Your task to perform on an android device: turn off notifications settings in the gmail app Image 0: 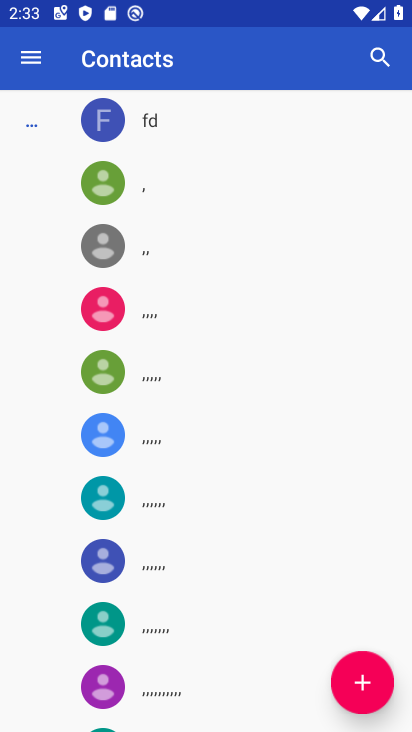
Step 0: press home button
Your task to perform on an android device: turn off notifications settings in the gmail app Image 1: 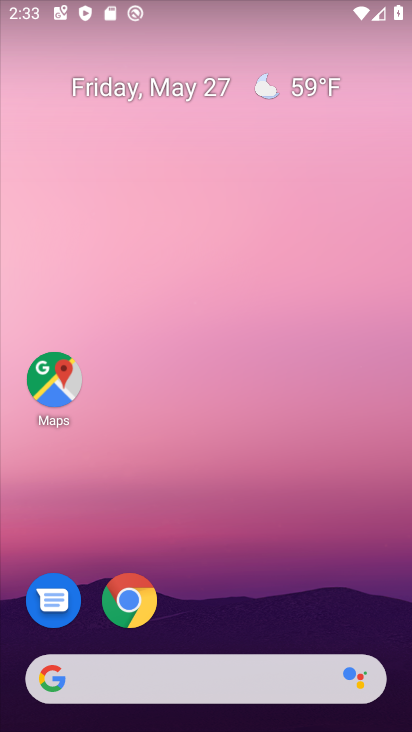
Step 1: drag from (265, 612) to (224, 80)
Your task to perform on an android device: turn off notifications settings in the gmail app Image 2: 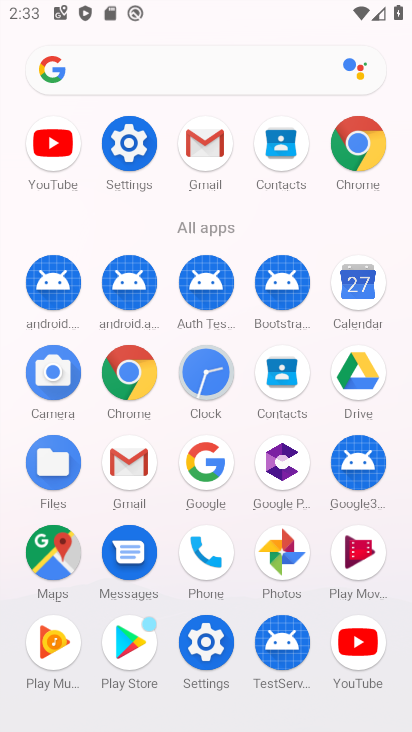
Step 2: click (203, 142)
Your task to perform on an android device: turn off notifications settings in the gmail app Image 3: 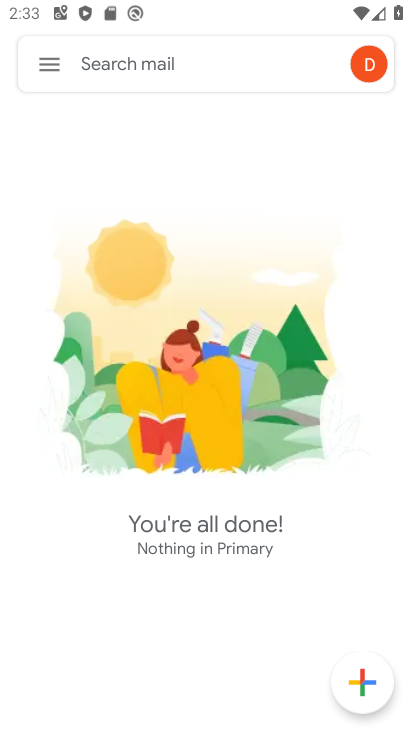
Step 3: click (50, 65)
Your task to perform on an android device: turn off notifications settings in the gmail app Image 4: 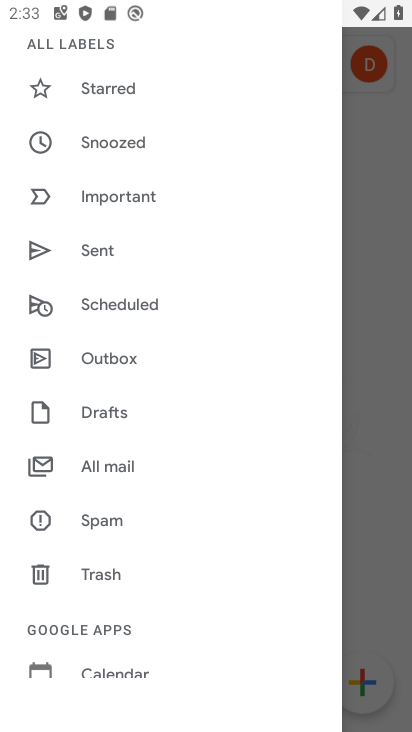
Step 4: drag from (141, 507) to (164, 386)
Your task to perform on an android device: turn off notifications settings in the gmail app Image 5: 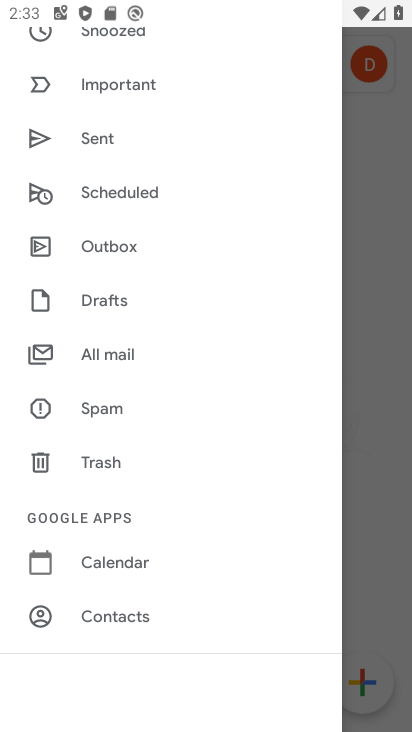
Step 5: drag from (141, 593) to (135, 500)
Your task to perform on an android device: turn off notifications settings in the gmail app Image 6: 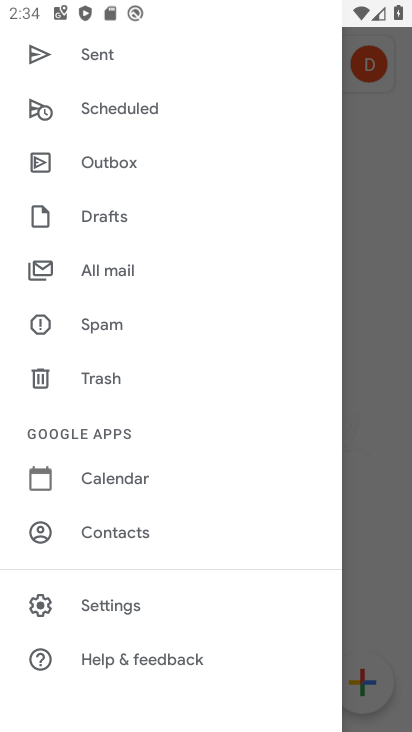
Step 6: click (119, 597)
Your task to perform on an android device: turn off notifications settings in the gmail app Image 7: 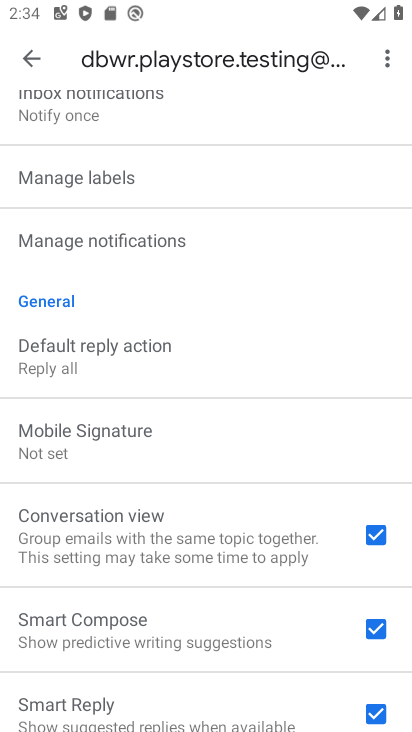
Step 7: click (126, 239)
Your task to perform on an android device: turn off notifications settings in the gmail app Image 8: 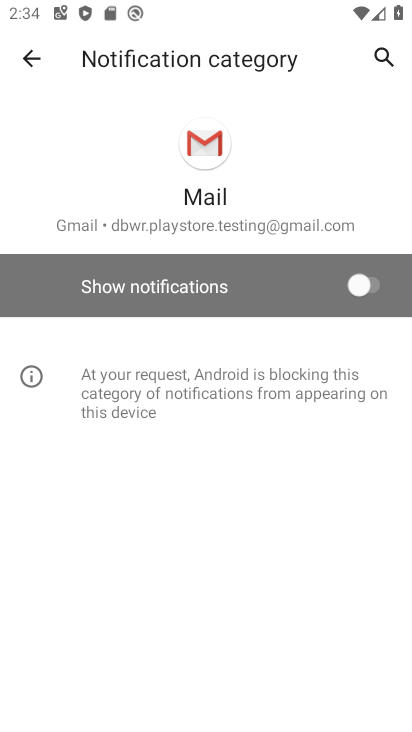
Step 8: task complete